Your task to perform on an android device: What is the recent news? Image 0: 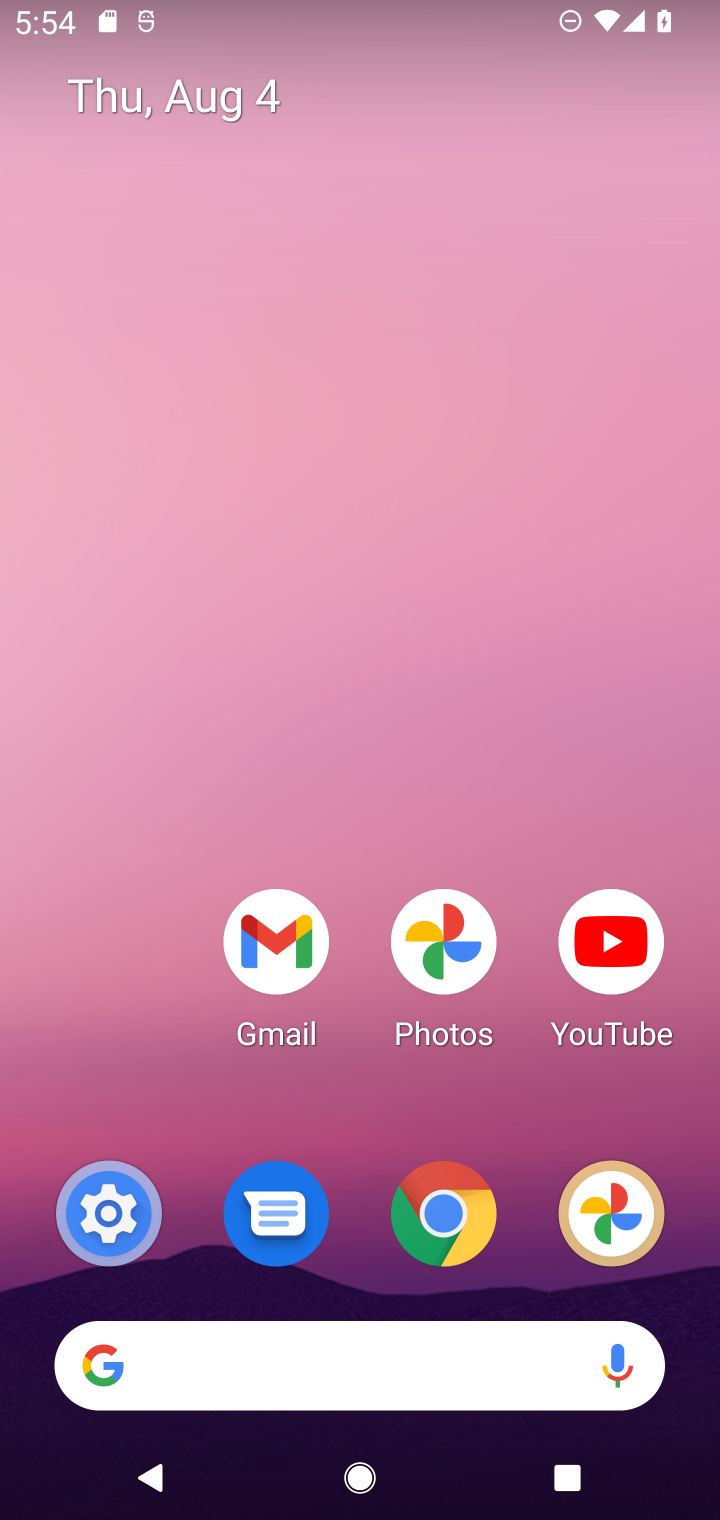
Step 0: drag from (37, 578) to (707, 893)
Your task to perform on an android device: What is the recent news? Image 1: 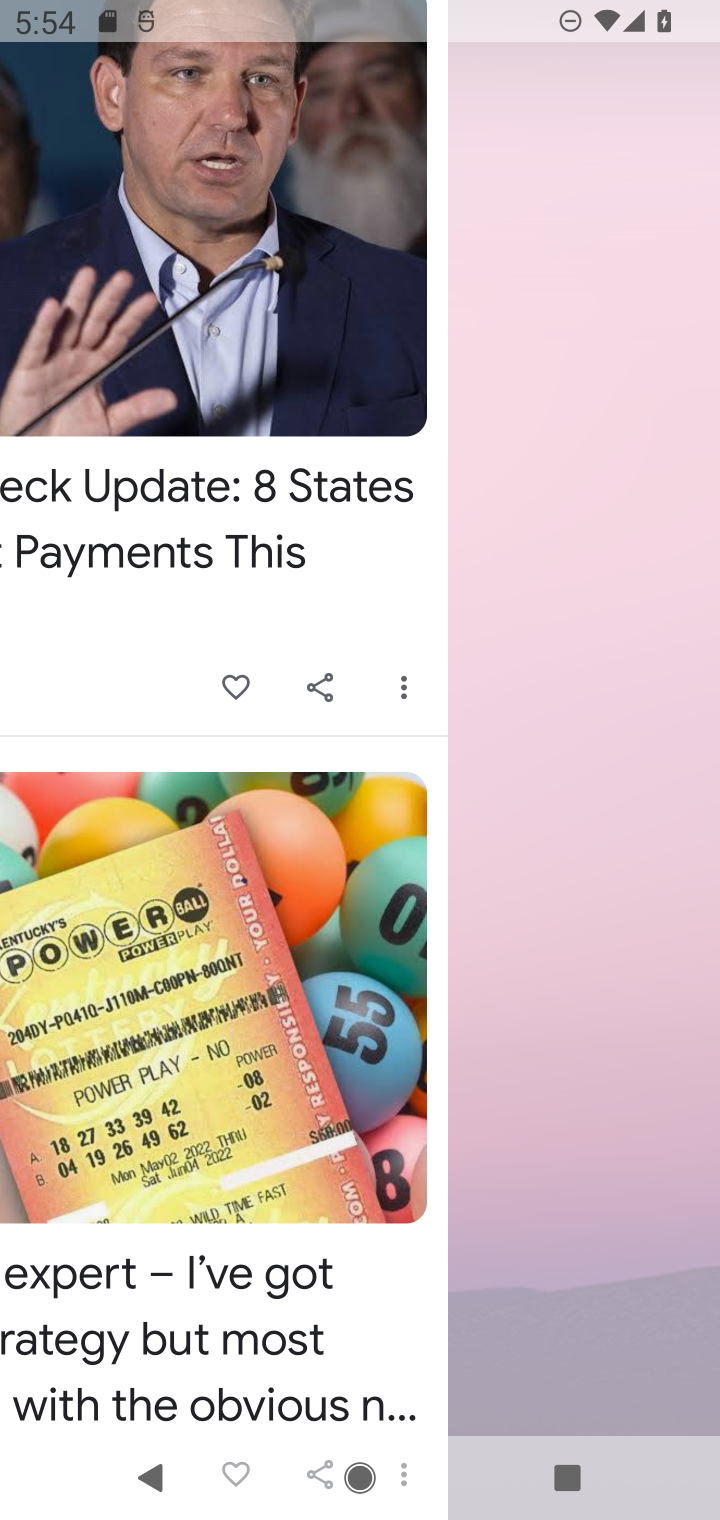
Step 1: task complete